Your task to perform on an android device: turn off location Image 0: 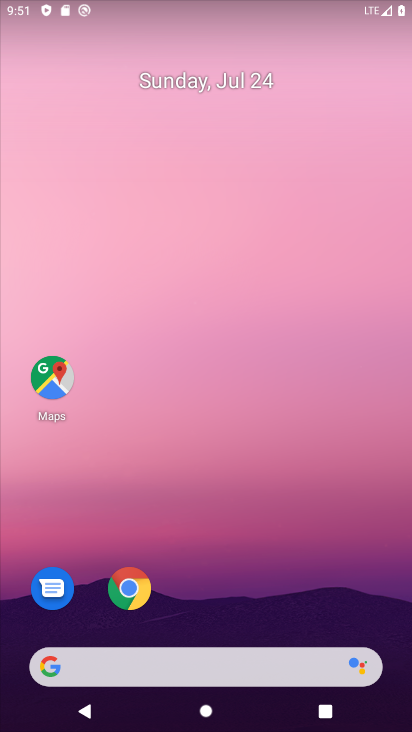
Step 0: drag from (152, 670) to (274, 7)
Your task to perform on an android device: turn off location Image 1: 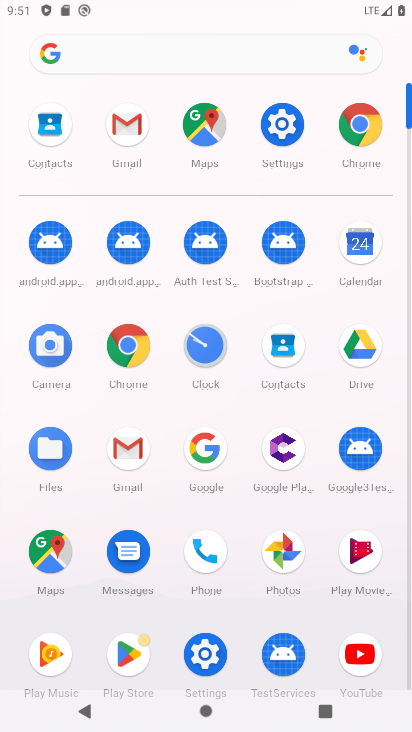
Step 1: click (282, 120)
Your task to perform on an android device: turn off location Image 2: 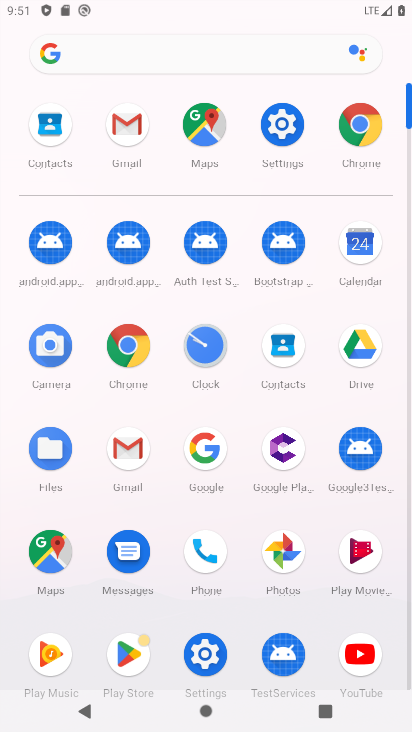
Step 2: click (282, 120)
Your task to perform on an android device: turn off location Image 3: 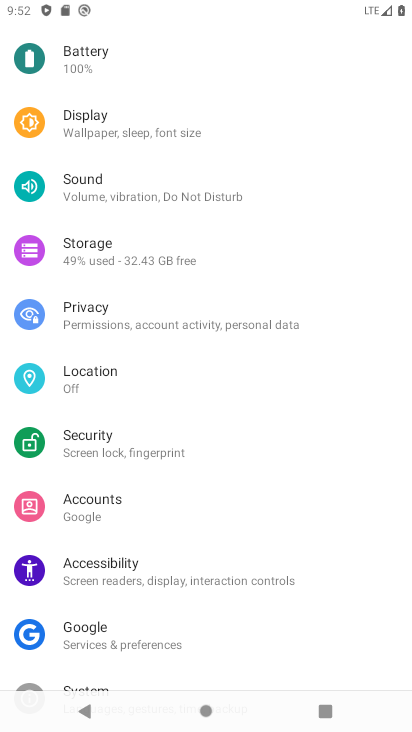
Step 3: click (87, 387)
Your task to perform on an android device: turn off location Image 4: 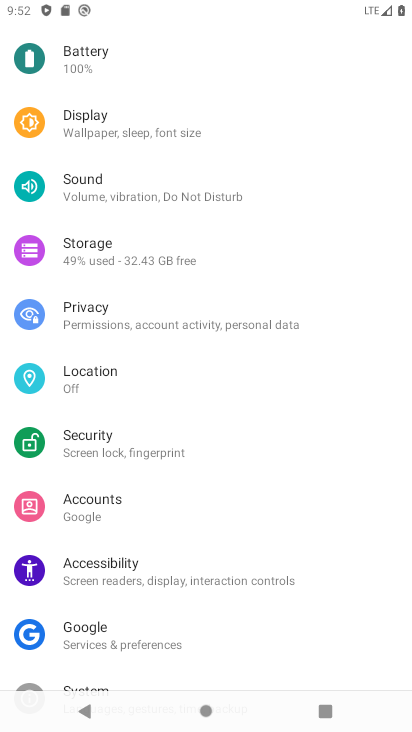
Step 4: click (87, 387)
Your task to perform on an android device: turn off location Image 5: 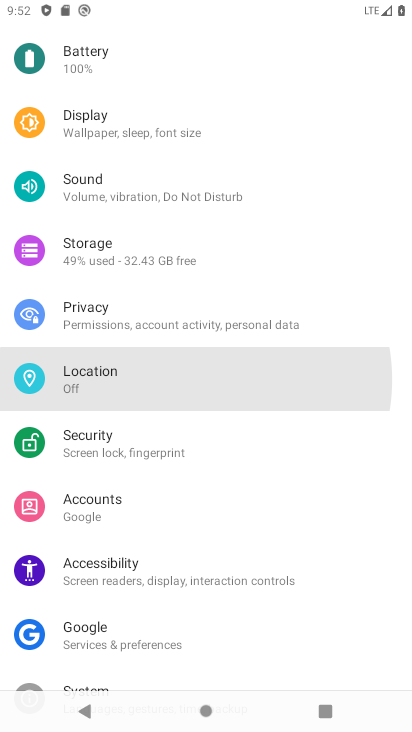
Step 5: click (87, 387)
Your task to perform on an android device: turn off location Image 6: 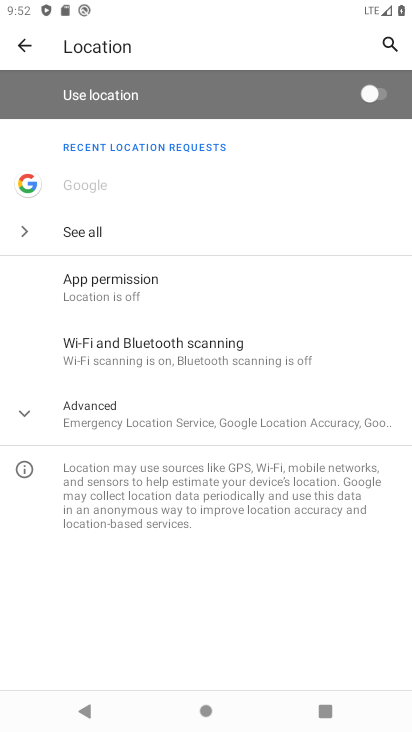
Step 6: task complete